Your task to perform on an android device: Open wifi settings Image 0: 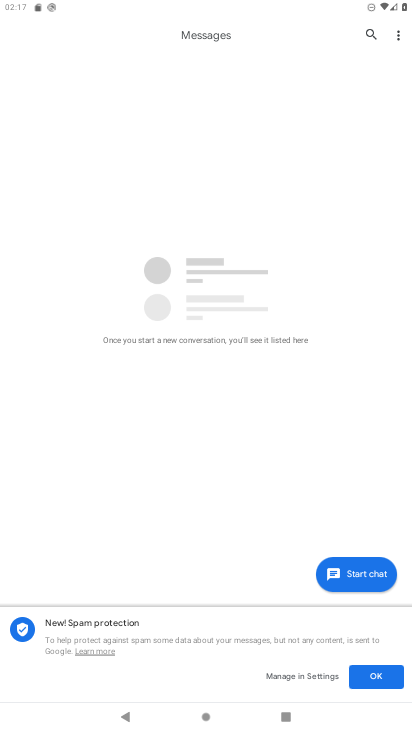
Step 0: press home button
Your task to perform on an android device: Open wifi settings Image 1: 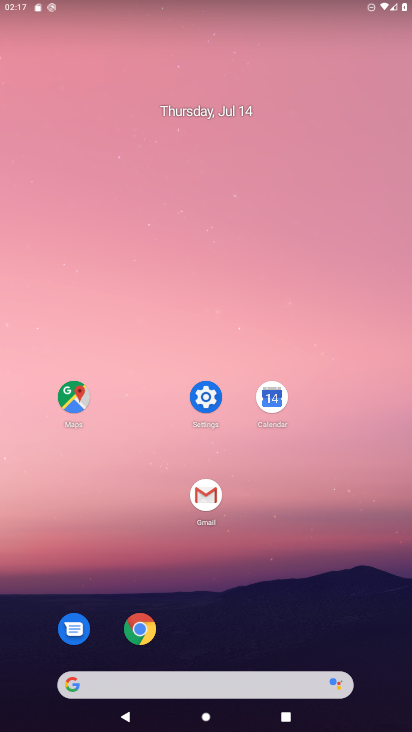
Step 1: drag from (396, 697) to (312, 300)
Your task to perform on an android device: Open wifi settings Image 2: 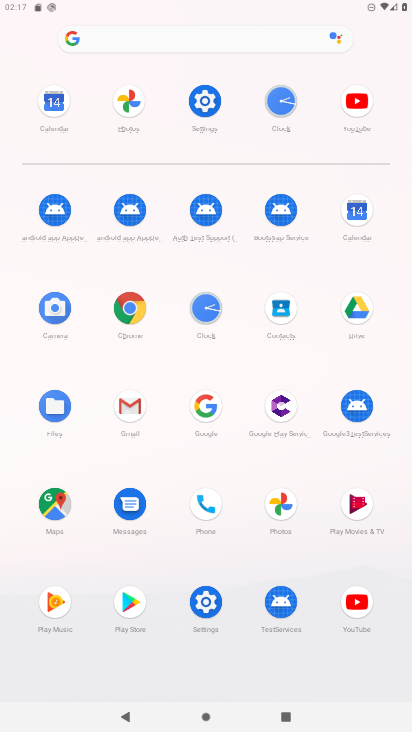
Step 2: click (217, 96)
Your task to perform on an android device: Open wifi settings Image 3: 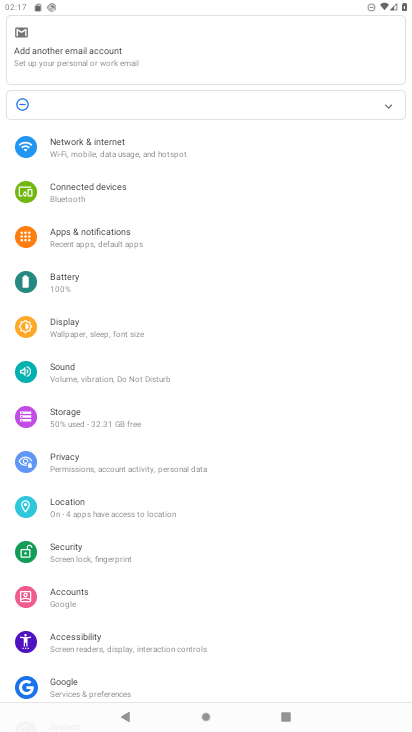
Step 3: click (63, 157)
Your task to perform on an android device: Open wifi settings Image 4: 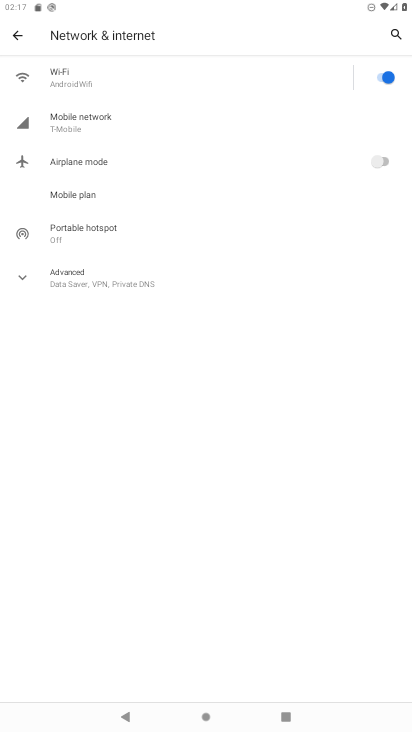
Step 4: click (246, 85)
Your task to perform on an android device: Open wifi settings Image 5: 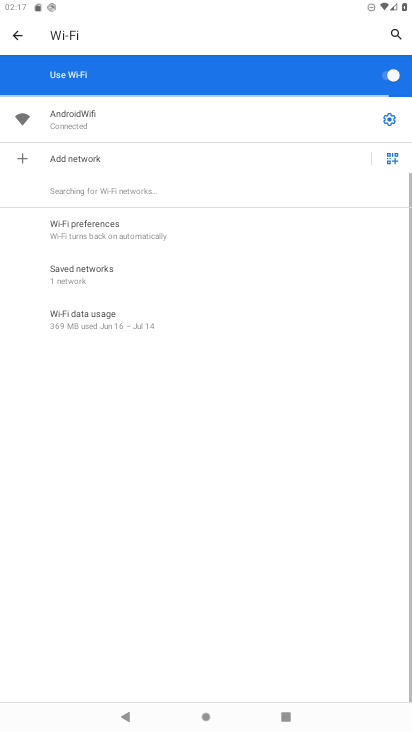
Step 5: click (393, 116)
Your task to perform on an android device: Open wifi settings Image 6: 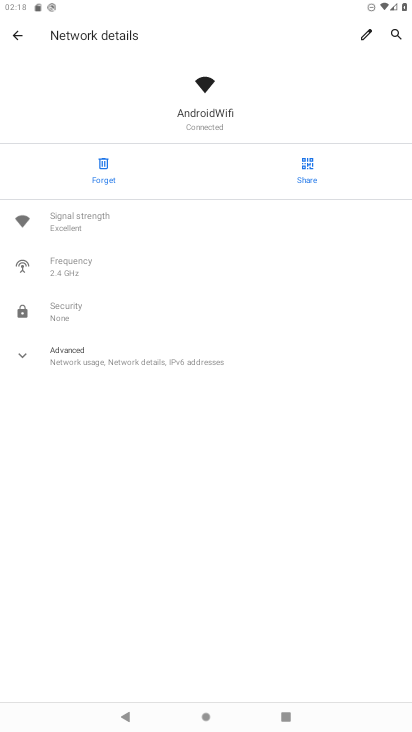
Step 6: task complete